Your task to perform on an android device: Is it going to rain tomorrow? Image 0: 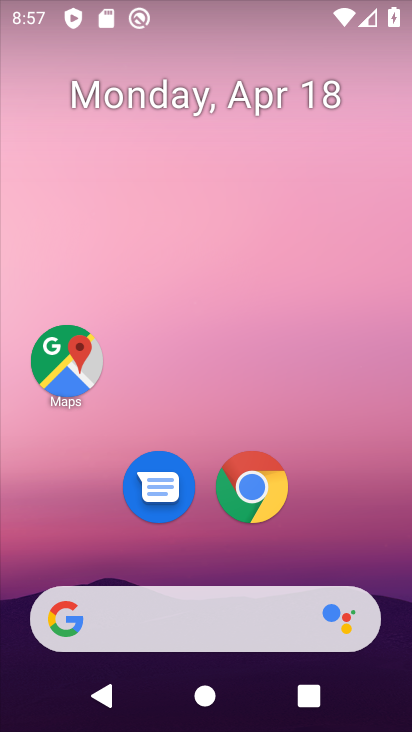
Step 0: click (258, 498)
Your task to perform on an android device: Is it going to rain tomorrow? Image 1: 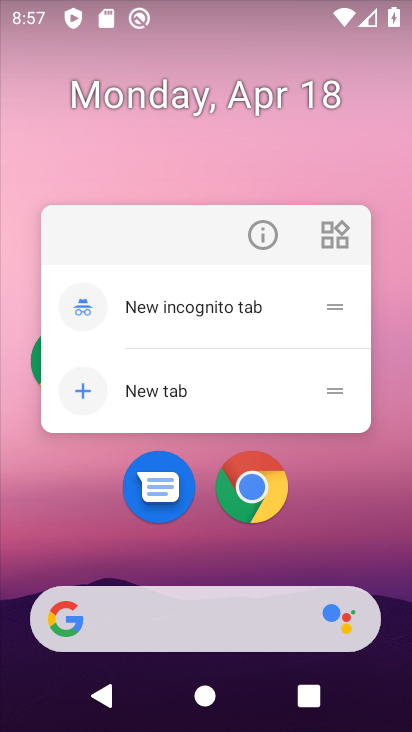
Step 1: click (258, 496)
Your task to perform on an android device: Is it going to rain tomorrow? Image 2: 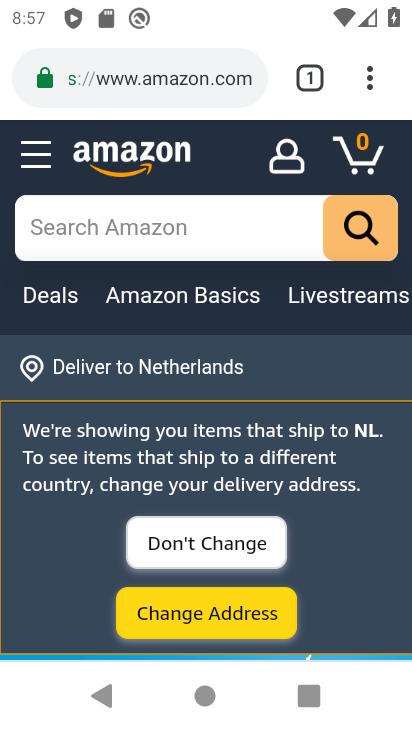
Step 2: click (262, 86)
Your task to perform on an android device: Is it going to rain tomorrow? Image 3: 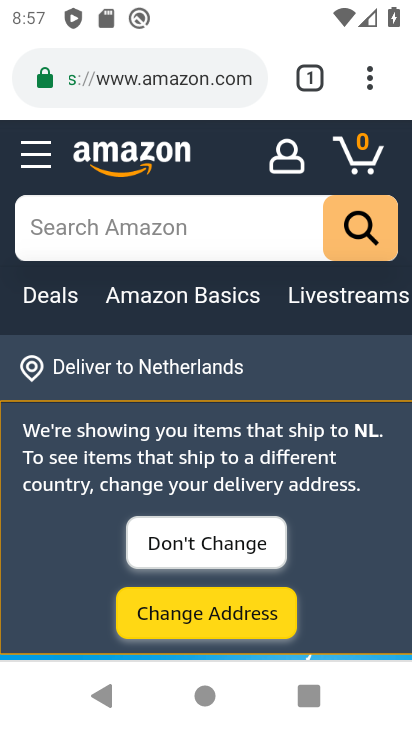
Step 3: click (246, 81)
Your task to perform on an android device: Is it going to rain tomorrow? Image 4: 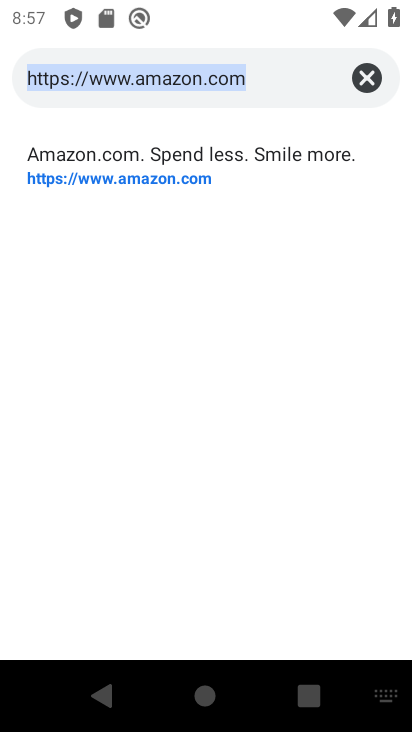
Step 4: click (374, 72)
Your task to perform on an android device: Is it going to rain tomorrow? Image 5: 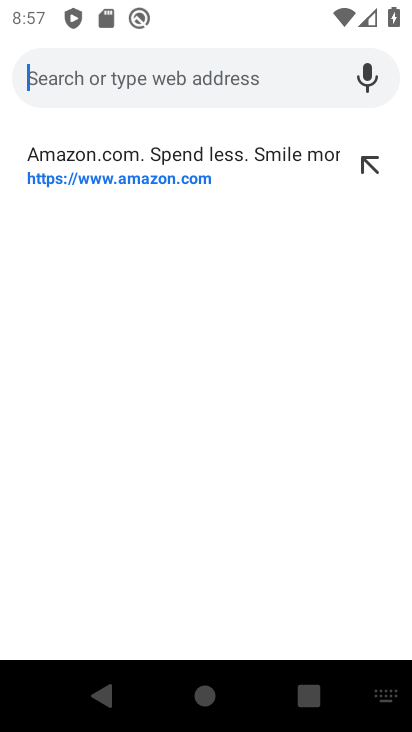
Step 5: click (239, 64)
Your task to perform on an android device: Is it going to rain tomorrow? Image 6: 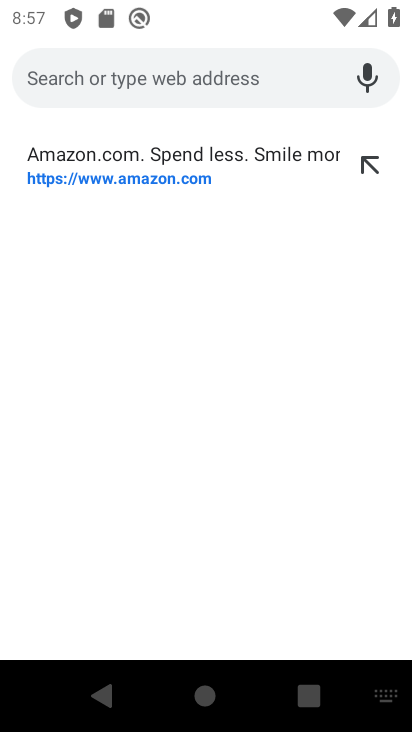
Step 6: type "wheather"
Your task to perform on an android device: Is it going to rain tomorrow? Image 7: 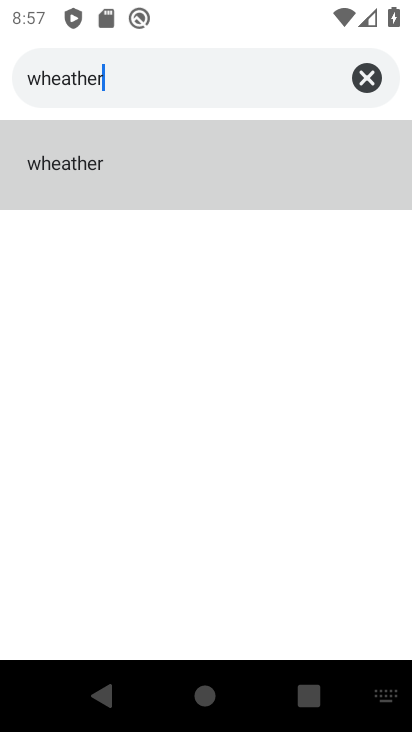
Step 7: click (193, 178)
Your task to perform on an android device: Is it going to rain tomorrow? Image 8: 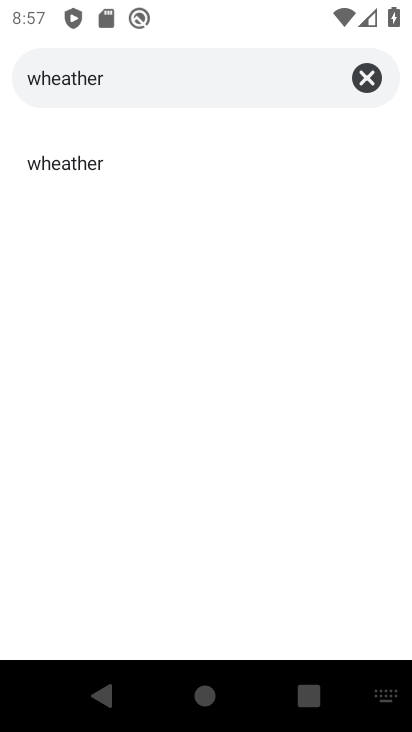
Step 8: click (103, 168)
Your task to perform on an android device: Is it going to rain tomorrow? Image 9: 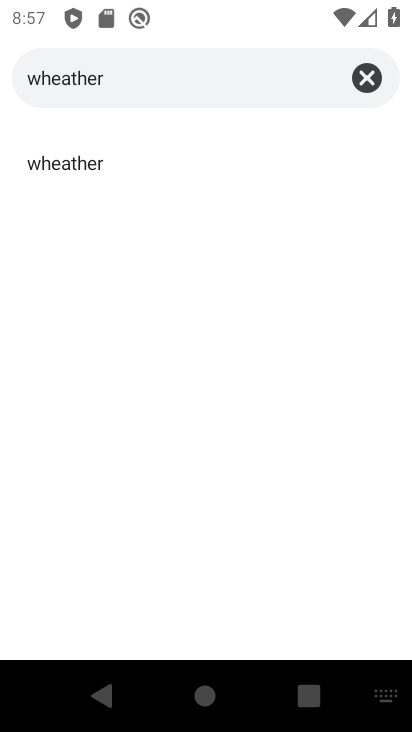
Step 9: click (105, 166)
Your task to perform on an android device: Is it going to rain tomorrow? Image 10: 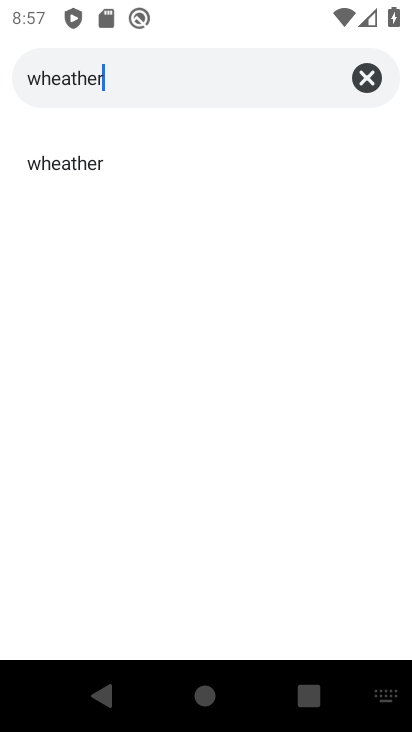
Step 10: click (105, 166)
Your task to perform on an android device: Is it going to rain tomorrow? Image 11: 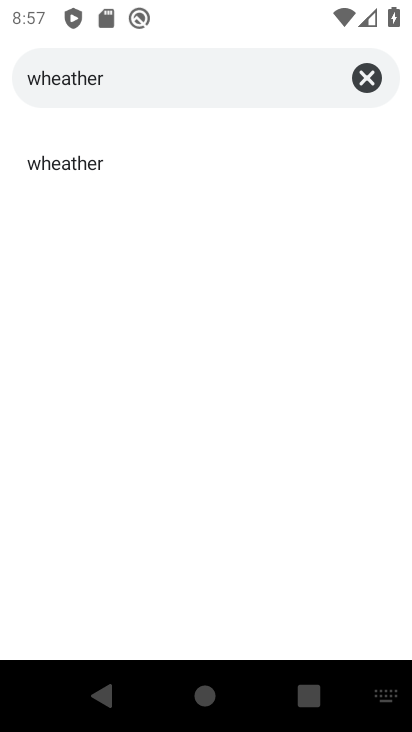
Step 11: click (105, 165)
Your task to perform on an android device: Is it going to rain tomorrow? Image 12: 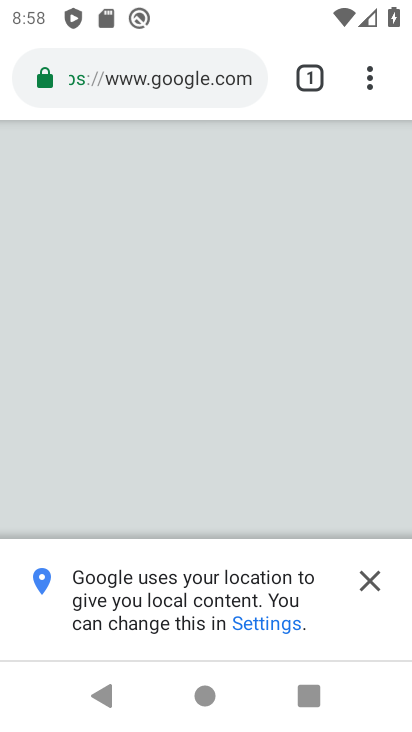
Step 12: click (376, 573)
Your task to perform on an android device: Is it going to rain tomorrow? Image 13: 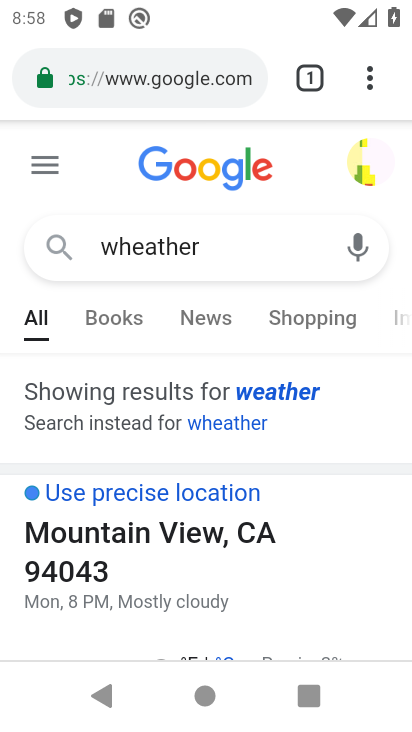
Step 13: task complete